Your task to perform on an android device: toggle improve location accuracy Image 0: 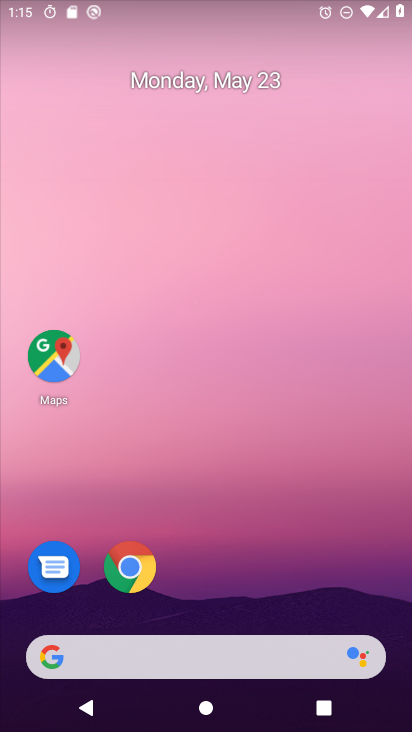
Step 0: drag from (164, 570) to (259, 181)
Your task to perform on an android device: toggle improve location accuracy Image 1: 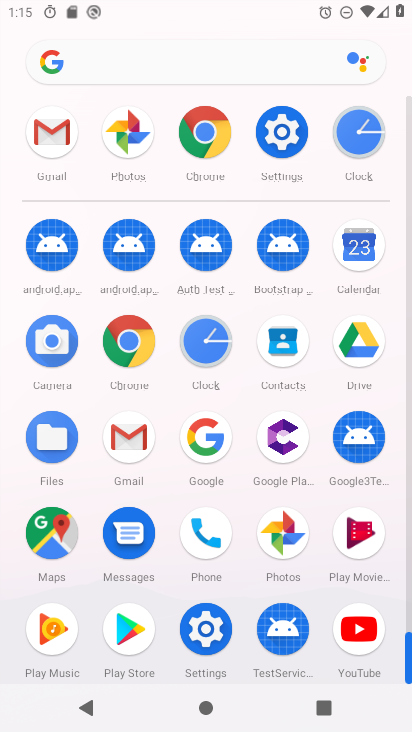
Step 1: click (283, 129)
Your task to perform on an android device: toggle improve location accuracy Image 2: 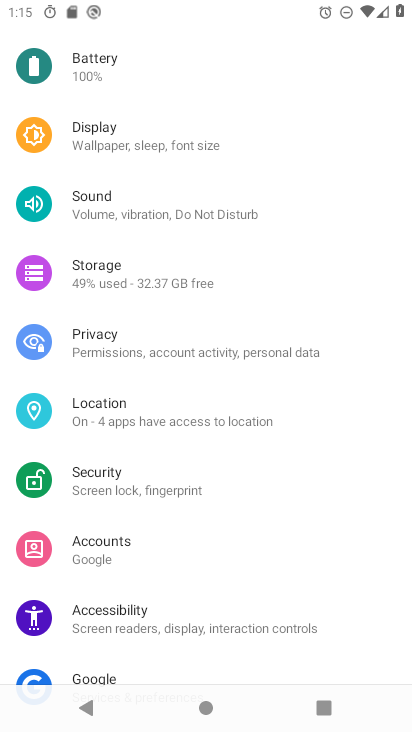
Step 2: click (126, 434)
Your task to perform on an android device: toggle improve location accuracy Image 3: 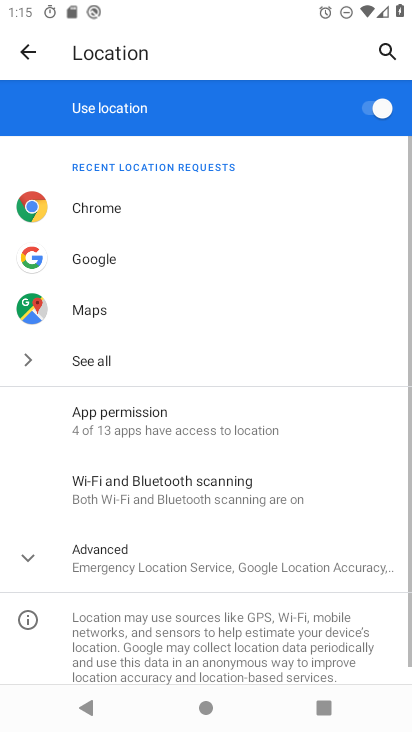
Step 3: click (127, 580)
Your task to perform on an android device: toggle improve location accuracy Image 4: 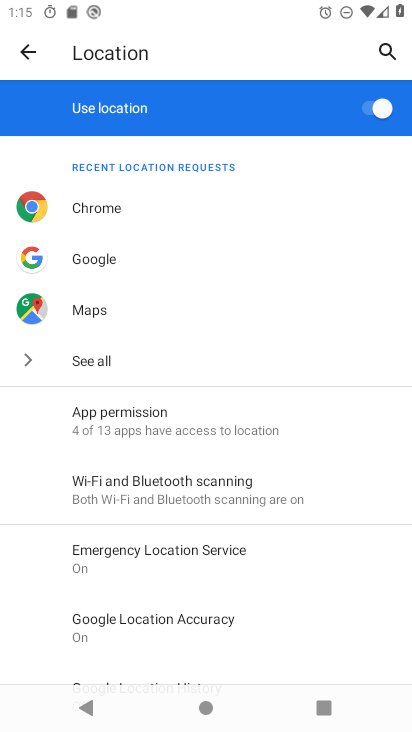
Step 4: click (160, 654)
Your task to perform on an android device: toggle improve location accuracy Image 5: 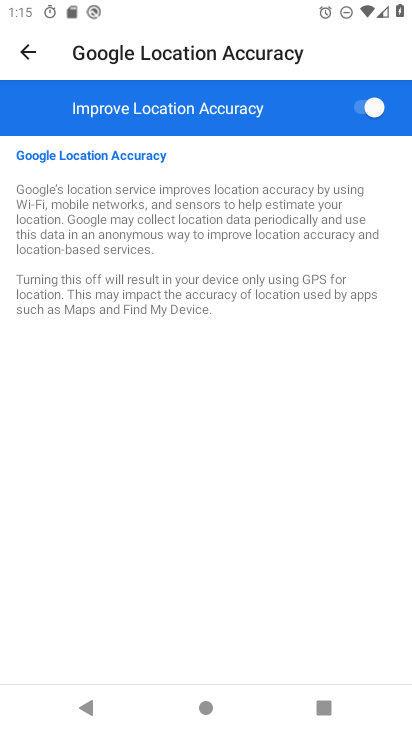
Step 5: click (370, 102)
Your task to perform on an android device: toggle improve location accuracy Image 6: 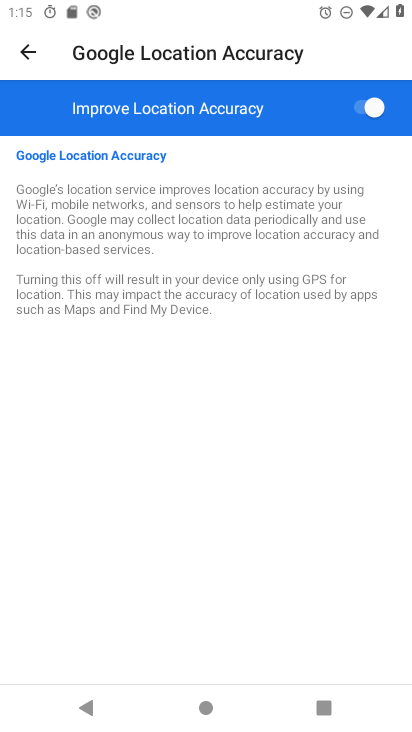
Step 6: click (370, 102)
Your task to perform on an android device: toggle improve location accuracy Image 7: 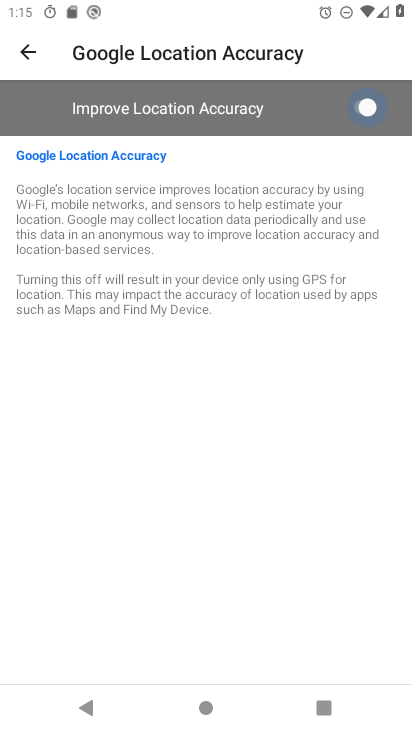
Step 7: click (370, 102)
Your task to perform on an android device: toggle improve location accuracy Image 8: 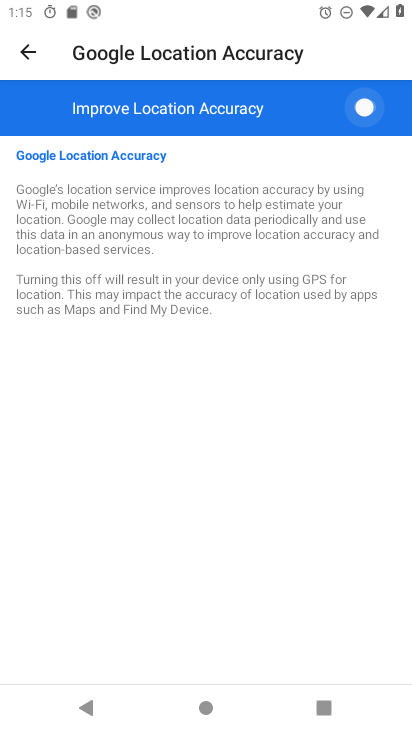
Step 8: click (370, 102)
Your task to perform on an android device: toggle improve location accuracy Image 9: 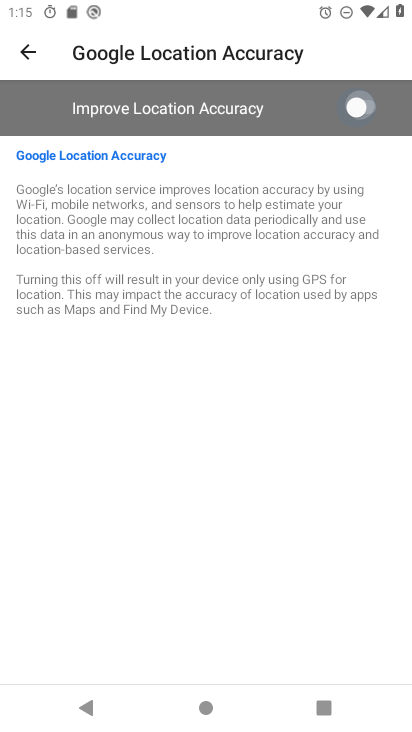
Step 9: click (370, 102)
Your task to perform on an android device: toggle improve location accuracy Image 10: 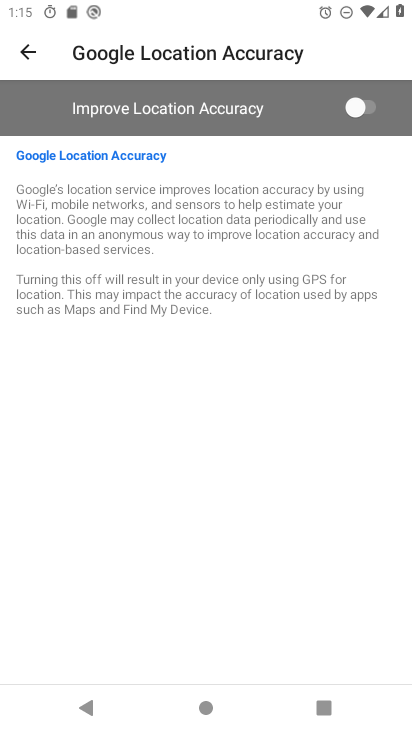
Step 10: click (370, 102)
Your task to perform on an android device: toggle improve location accuracy Image 11: 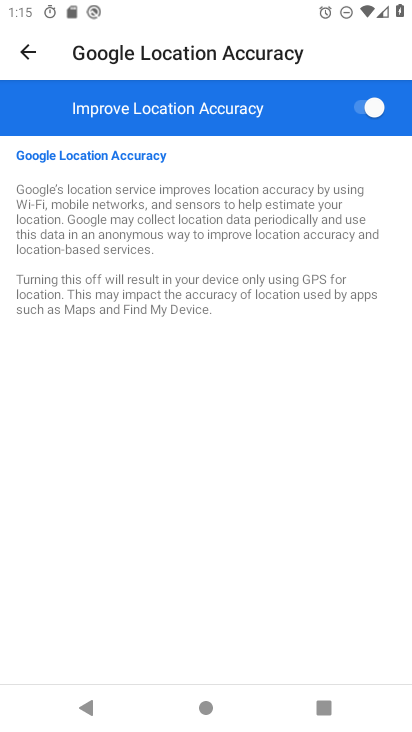
Step 11: task complete